Your task to perform on an android device: turn on showing notifications on the lock screen Image 0: 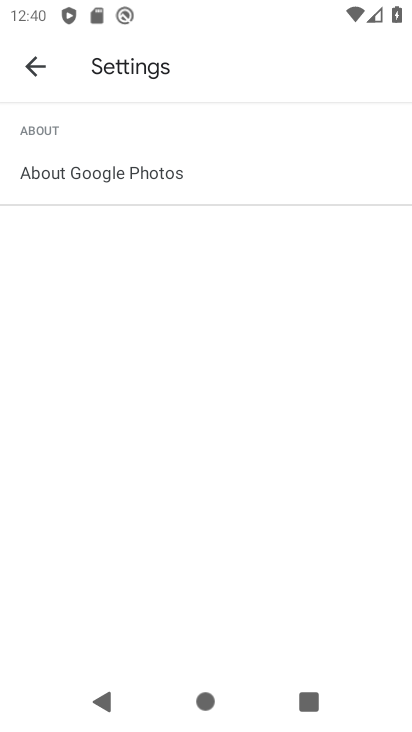
Step 0: press home button
Your task to perform on an android device: turn on showing notifications on the lock screen Image 1: 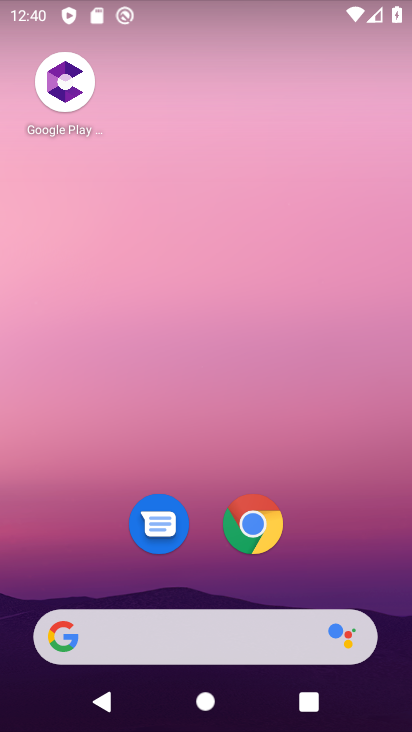
Step 1: drag from (204, 557) to (254, 66)
Your task to perform on an android device: turn on showing notifications on the lock screen Image 2: 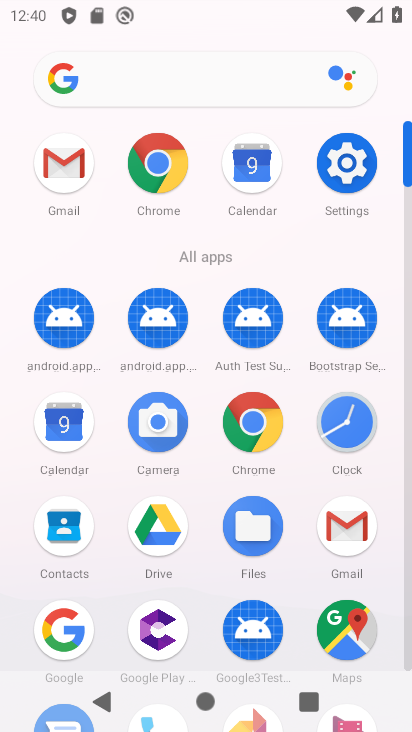
Step 2: click (337, 156)
Your task to perform on an android device: turn on showing notifications on the lock screen Image 3: 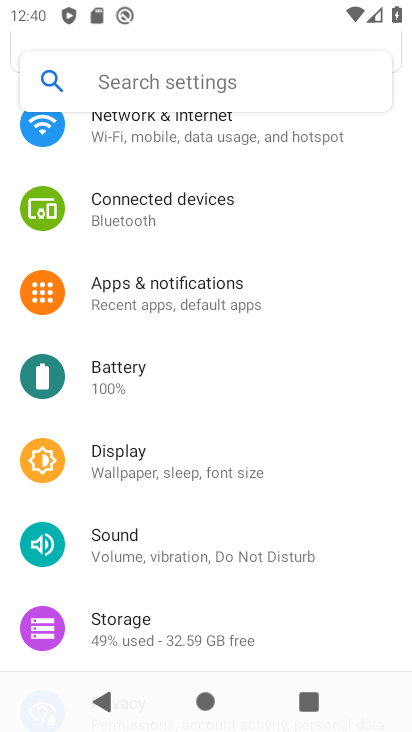
Step 3: click (231, 278)
Your task to perform on an android device: turn on showing notifications on the lock screen Image 4: 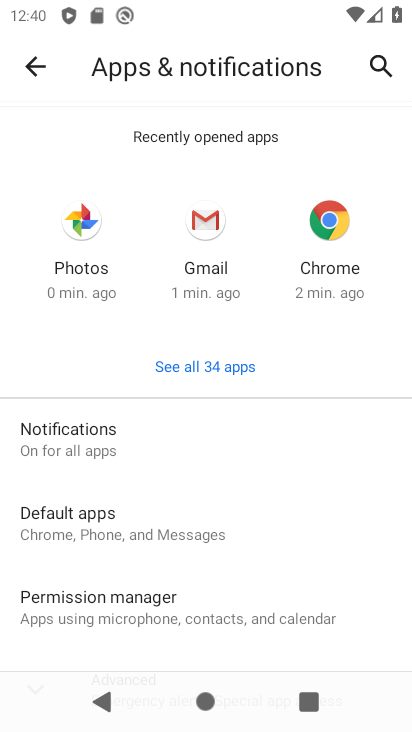
Step 4: click (162, 434)
Your task to perform on an android device: turn on showing notifications on the lock screen Image 5: 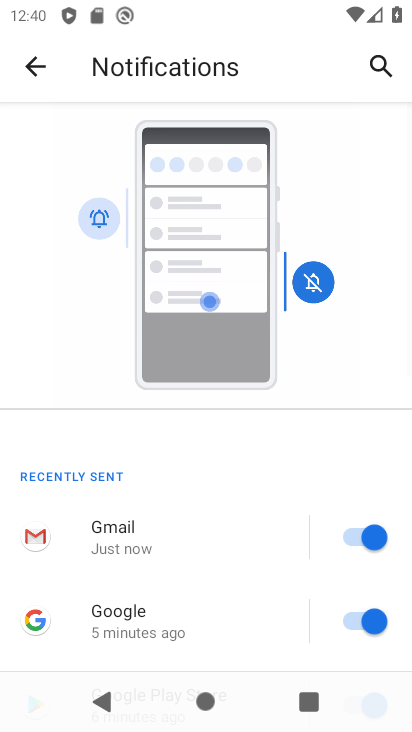
Step 5: task complete